Your task to perform on an android device: change keyboard looks Image 0: 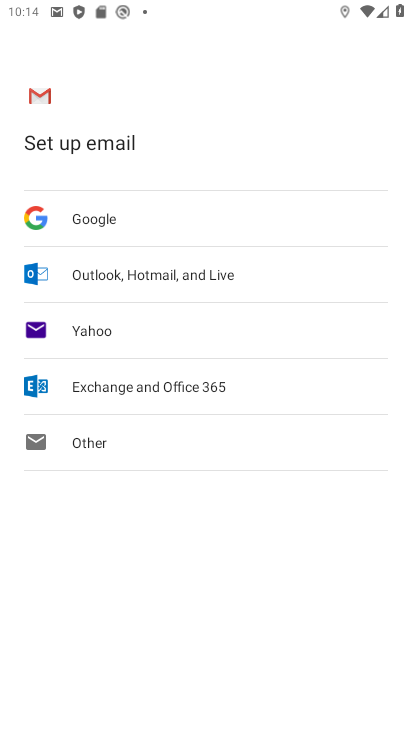
Step 0: press home button
Your task to perform on an android device: change keyboard looks Image 1: 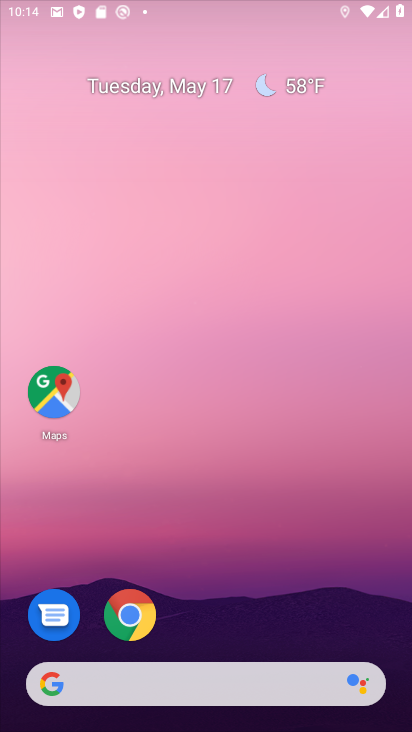
Step 1: drag from (225, 634) to (213, 219)
Your task to perform on an android device: change keyboard looks Image 2: 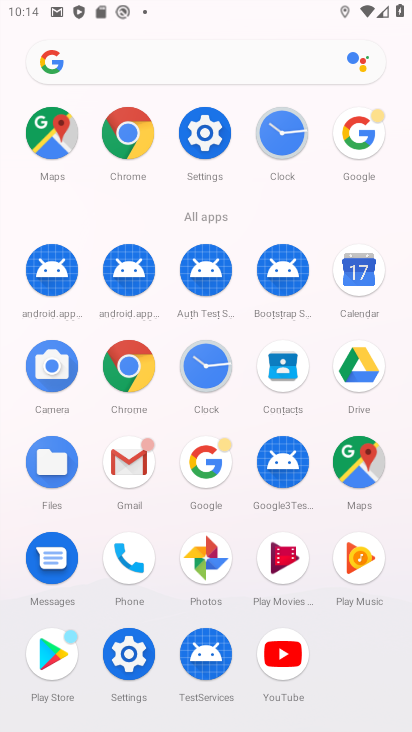
Step 2: click (201, 148)
Your task to perform on an android device: change keyboard looks Image 3: 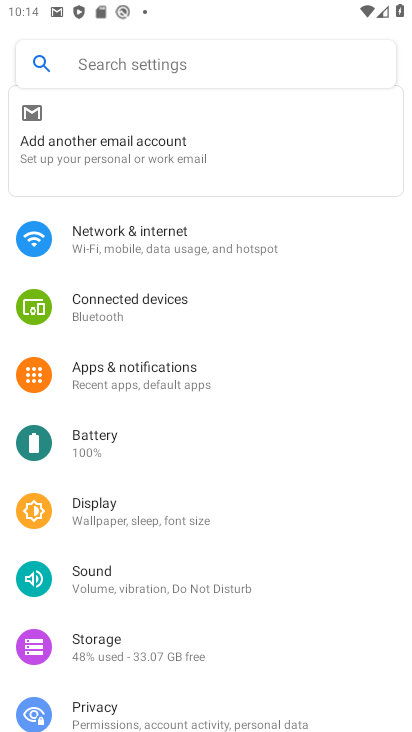
Step 3: drag from (281, 674) to (274, 200)
Your task to perform on an android device: change keyboard looks Image 4: 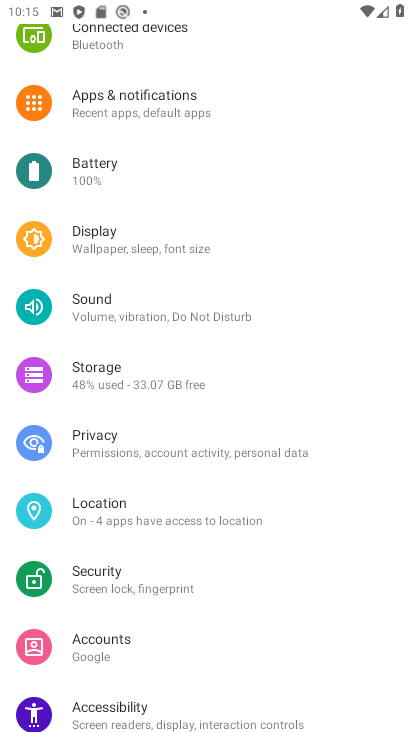
Step 4: drag from (239, 585) to (263, 200)
Your task to perform on an android device: change keyboard looks Image 5: 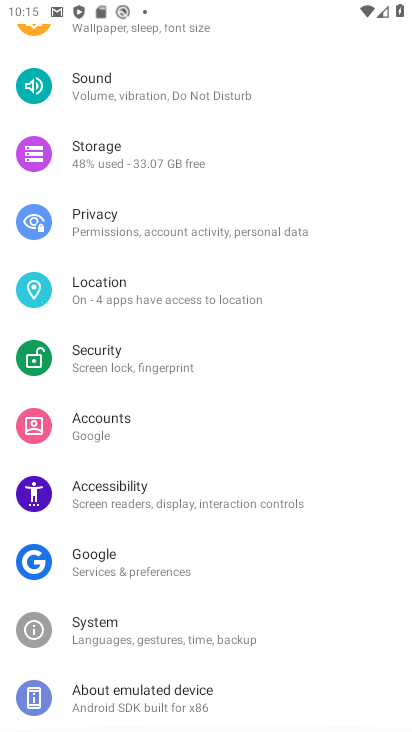
Step 5: drag from (263, 593) to (272, 240)
Your task to perform on an android device: change keyboard looks Image 6: 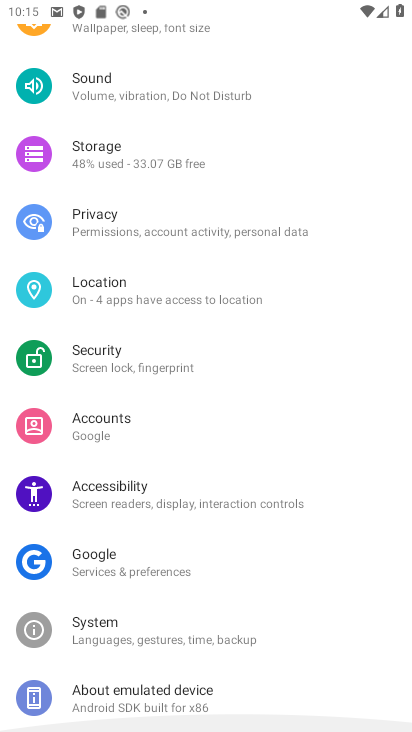
Step 6: drag from (223, 543) to (234, 350)
Your task to perform on an android device: change keyboard looks Image 7: 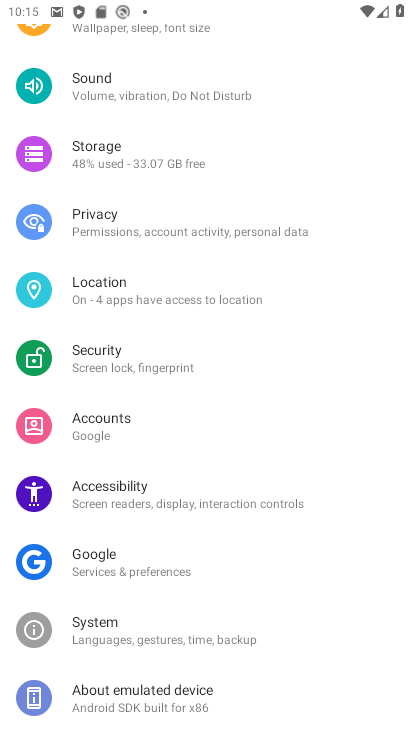
Step 7: click (137, 641)
Your task to perform on an android device: change keyboard looks Image 8: 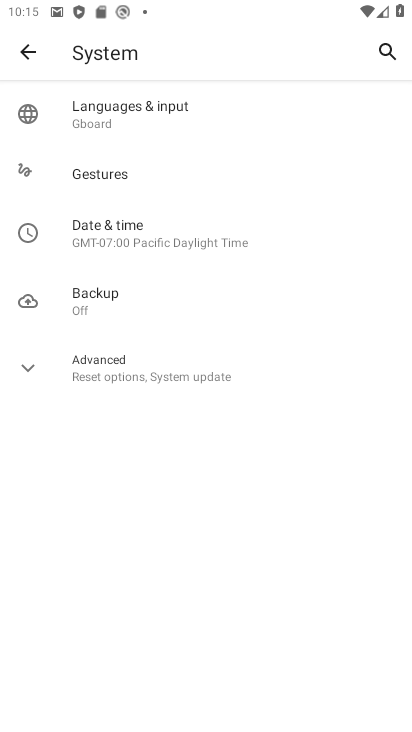
Step 8: click (125, 113)
Your task to perform on an android device: change keyboard looks Image 9: 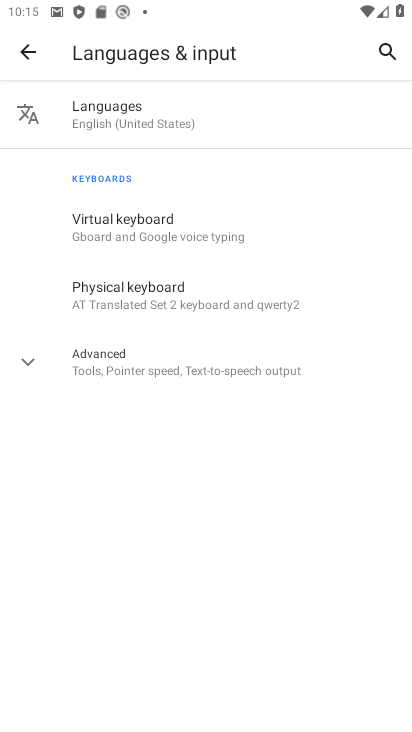
Step 9: click (134, 210)
Your task to perform on an android device: change keyboard looks Image 10: 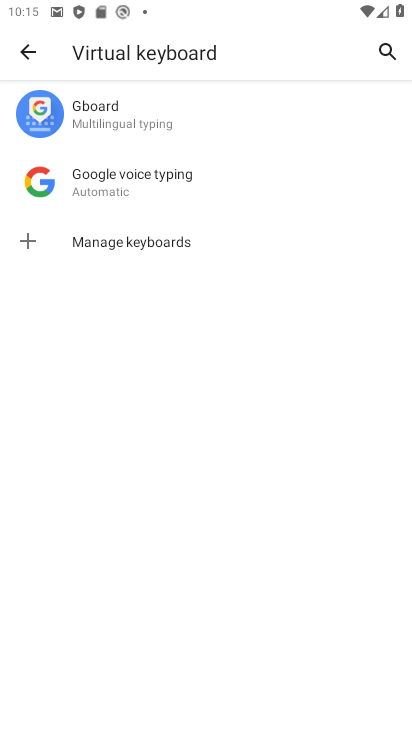
Step 10: click (119, 121)
Your task to perform on an android device: change keyboard looks Image 11: 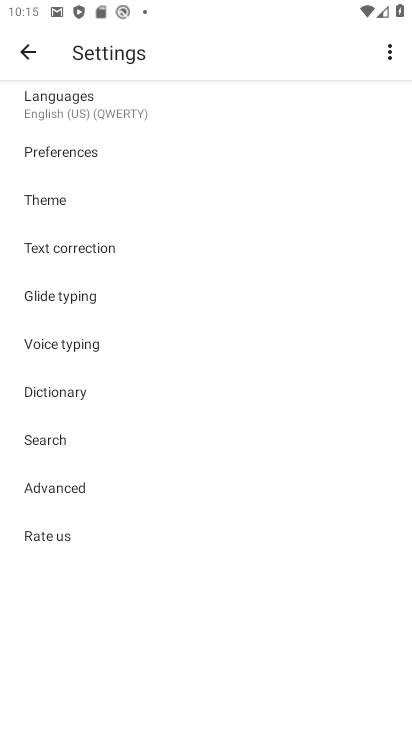
Step 11: click (72, 210)
Your task to perform on an android device: change keyboard looks Image 12: 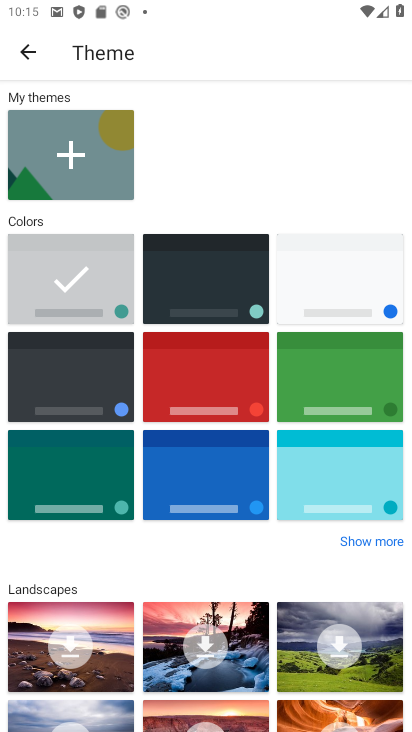
Step 12: click (162, 273)
Your task to perform on an android device: change keyboard looks Image 13: 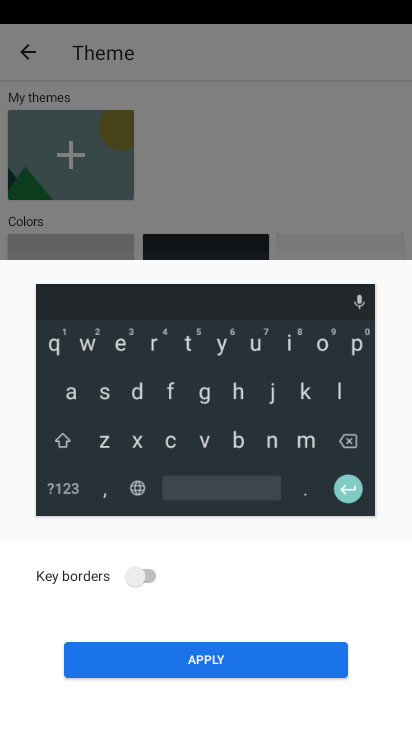
Step 13: click (232, 650)
Your task to perform on an android device: change keyboard looks Image 14: 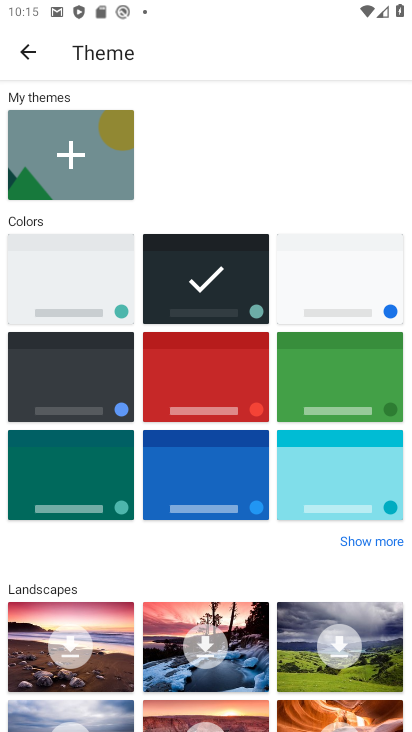
Step 14: task complete